Your task to perform on an android device: Add "apple airpods" to the cart on ebay.com, then select checkout. Image 0: 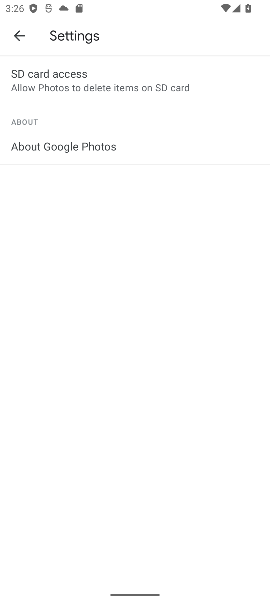
Step 0: press home button
Your task to perform on an android device: Add "apple airpods" to the cart on ebay.com, then select checkout. Image 1: 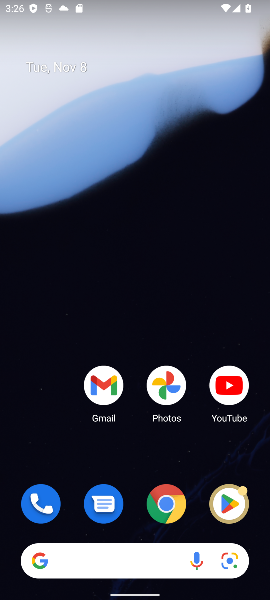
Step 1: drag from (135, 506) to (160, 172)
Your task to perform on an android device: Add "apple airpods" to the cart on ebay.com, then select checkout. Image 2: 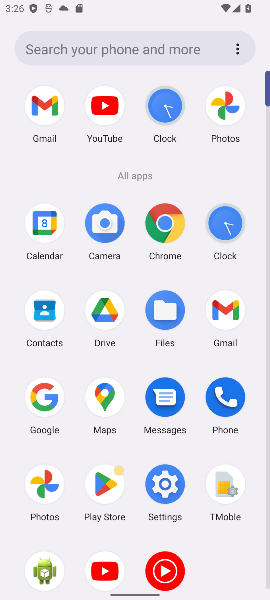
Step 2: click (165, 214)
Your task to perform on an android device: Add "apple airpods" to the cart on ebay.com, then select checkout. Image 3: 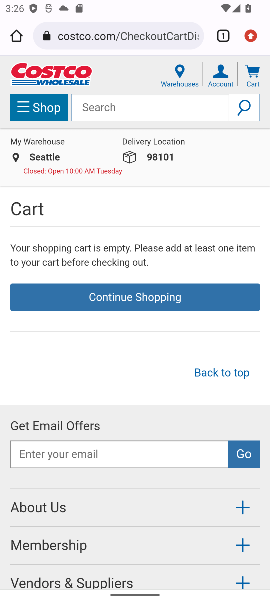
Step 3: click (103, 33)
Your task to perform on an android device: Add "apple airpods" to the cart on ebay.com, then select checkout. Image 4: 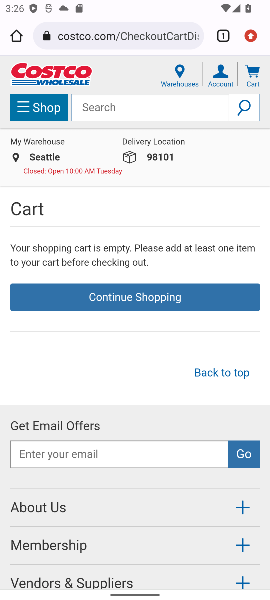
Step 4: click (142, 36)
Your task to perform on an android device: Add "apple airpods" to the cart on ebay.com, then select checkout. Image 5: 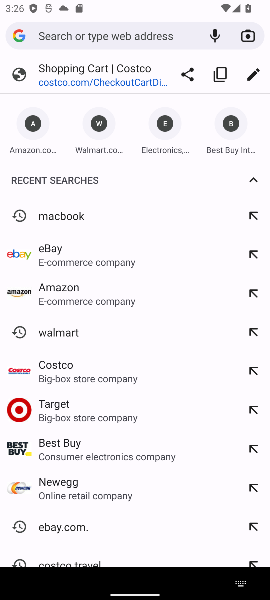
Step 5: click (247, 415)
Your task to perform on an android device: Add "apple airpods" to the cart on ebay.com, then select checkout. Image 6: 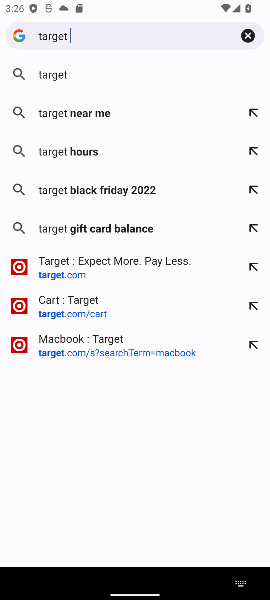
Step 6: type "costco"
Your task to perform on an android device: Add "apple airpods" to the cart on ebay.com, then select checkout. Image 7: 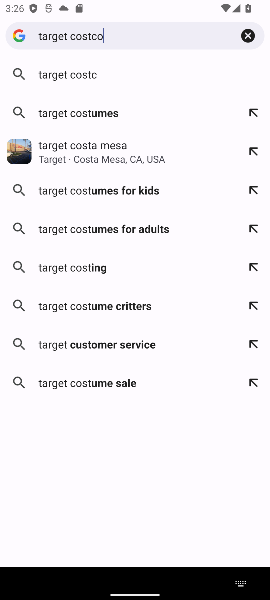
Step 7: press enter
Your task to perform on an android device: Add "apple airpods" to the cart on ebay.com, then select checkout. Image 8: 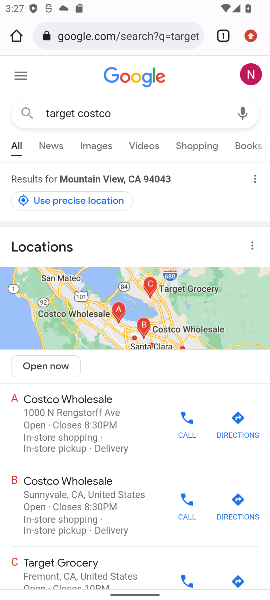
Step 8: click (126, 38)
Your task to perform on an android device: Add "apple airpods" to the cart on ebay.com, then select checkout. Image 9: 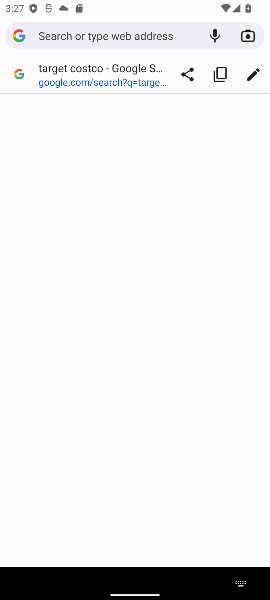
Step 9: type "ebay.com,"
Your task to perform on an android device: Add "apple airpods" to the cart on ebay.com, then select checkout. Image 10: 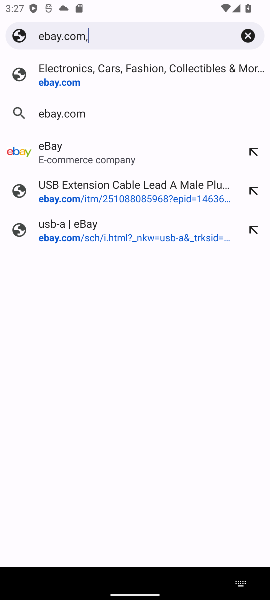
Step 10: press enter
Your task to perform on an android device: Add "apple airpods" to the cart on ebay.com, then select checkout. Image 11: 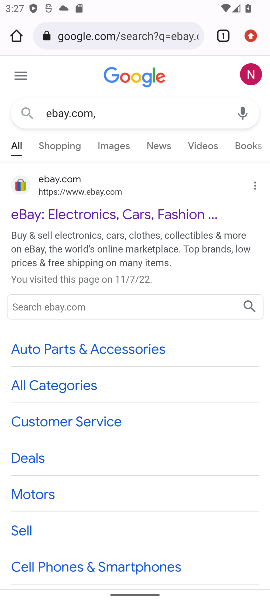
Step 11: click (72, 189)
Your task to perform on an android device: Add "apple airpods" to the cart on ebay.com, then select checkout. Image 12: 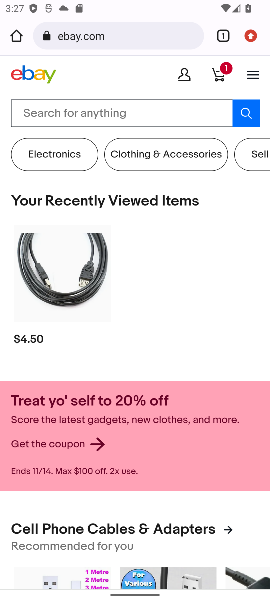
Step 12: click (100, 98)
Your task to perform on an android device: Add "apple airpods" to the cart on ebay.com, then select checkout. Image 13: 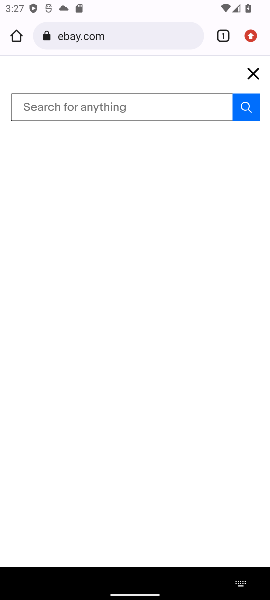
Step 13: type "apple airpods"
Your task to perform on an android device: Add "apple airpods" to the cart on ebay.com, then select checkout. Image 14: 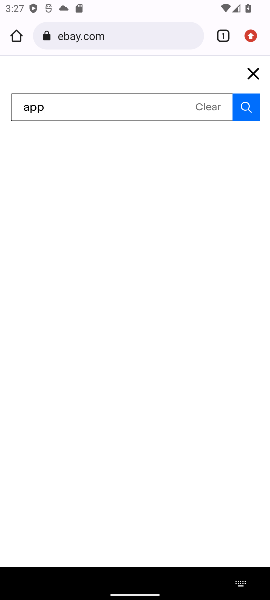
Step 14: press enter
Your task to perform on an android device: Add "apple airpods" to the cart on ebay.com, then select checkout. Image 15: 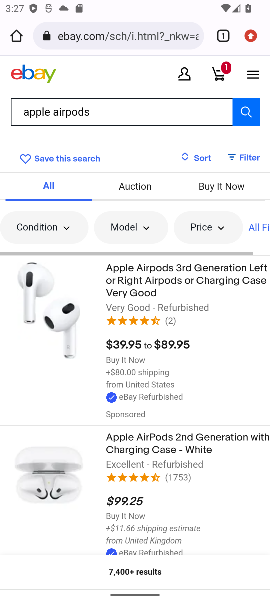
Step 15: click (116, 278)
Your task to perform on an android device: Add "apple airpods" to the cart on ebay.com, then select checkout. Image 16: 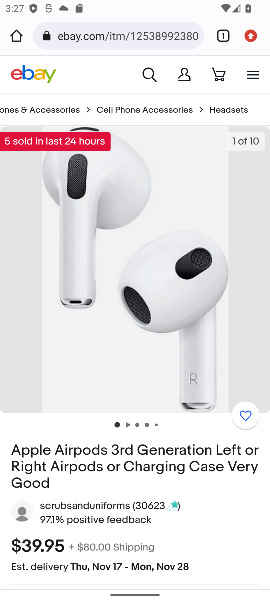
Step 16: drag from (127, 467) to (168, 207)
Your task to perform on an android device: Add "apple airpods" to the cart on ebay.com, then select checkout. Image 17: 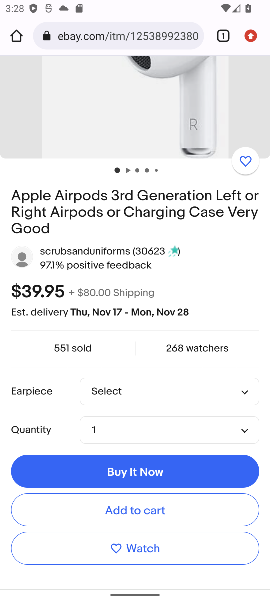
Step 17: click (145, 516)
Your task to perform on an android device: Add "apple airpods" to the cart on ebay.com, then select checkout. Image 18: 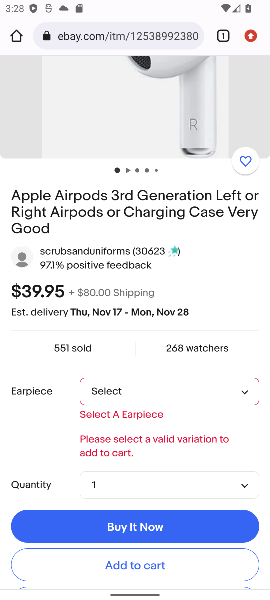
Step 18: click (127, 562)
Your task to perform on an android device: Add "apple airpods" to the cart on ebay.com, then select checkout. Image 19: 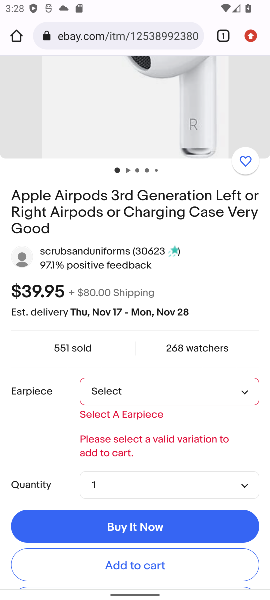
Step 19: click (250, 393)
Your task to perform on an android device: Add "apple airpods" to the cart on ebay.com, then select checkout. Image 20: 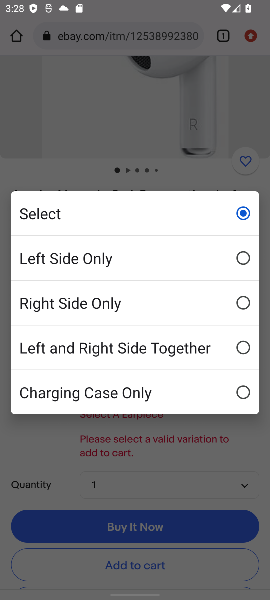
Step 20: click (244, 391)
Your task to perform on an android device: Add "apple airpods" to the cart on ebay.com, then select checkout. Image 21: 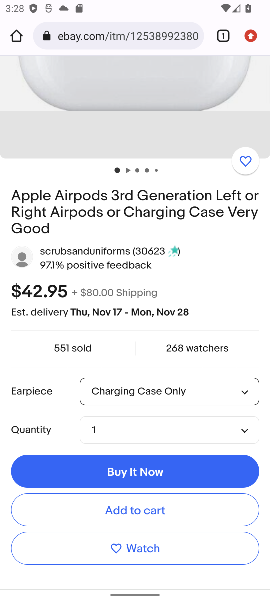
Step 21: click (138, 506)
Your task to perform on an android device: Add "apple airpods" to the cart on ebay.com, then select checkout. Image 22: 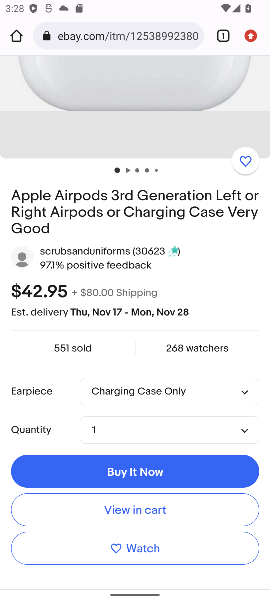
Step 22: click (136, 512)
Your task to perform on an android device: Add "apple airpods" to the cart on ebay.com, then select checkout. Image 23: 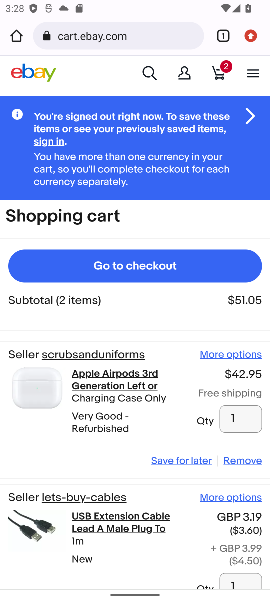
Step 23: task complete